Your task to perform on an android device: open app "Messages" Image 0: 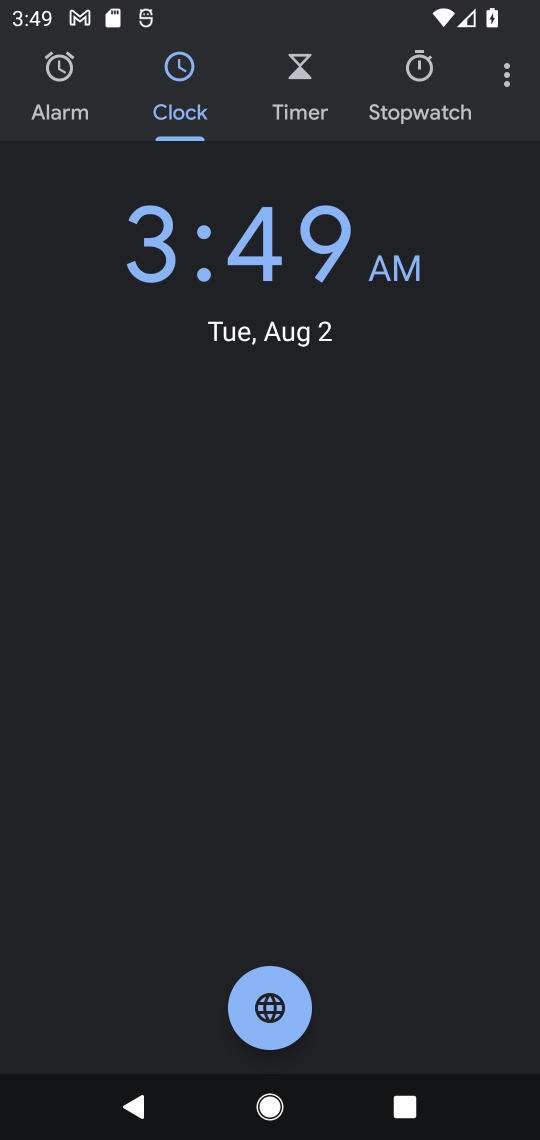
Step 0: press home button
Your task to perform on an android device: open app "Messages" Image 1: 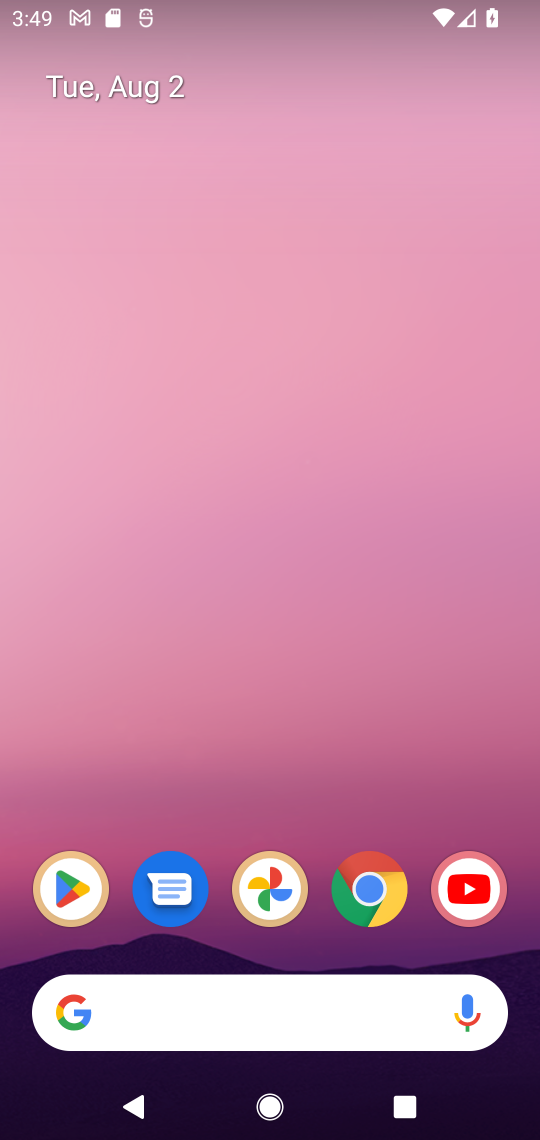
Step 1: drag from (463, 768) to (439, 72)
Your task to perform on an android device: open app "Messages" Image 2: 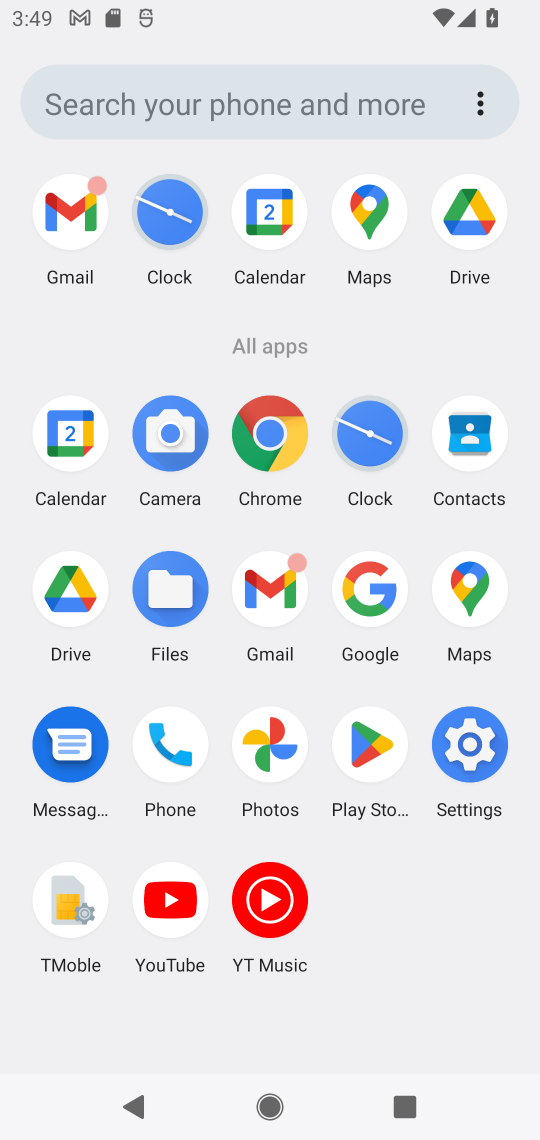
Step 2: click (370, 749)
Your task to perform on an android device: open app "Messages" Image 3: 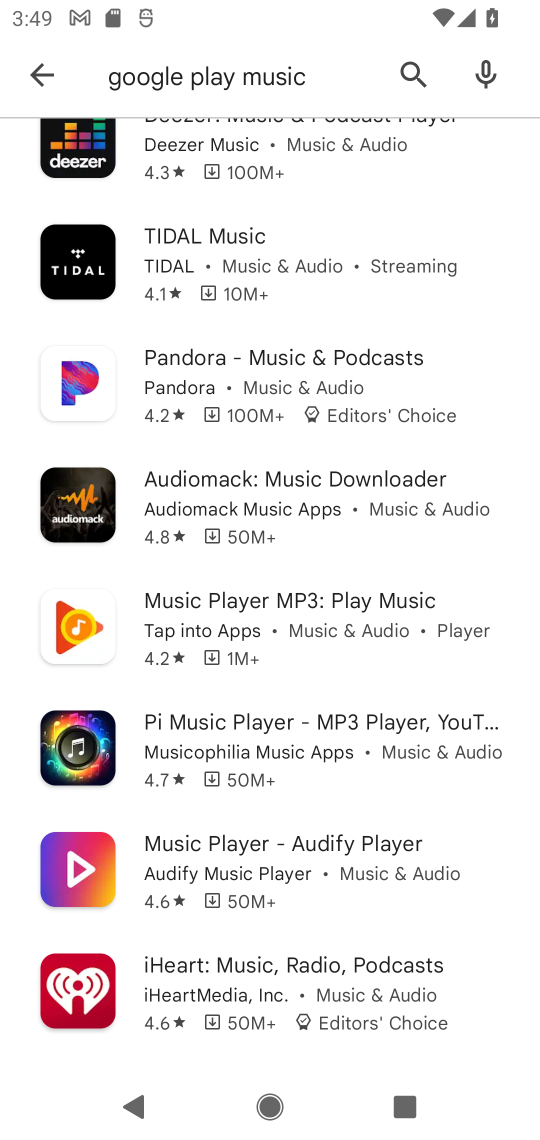
Step 3: click (406, 68)
Your task to perform on an android device: open app "Messages" Image 4: 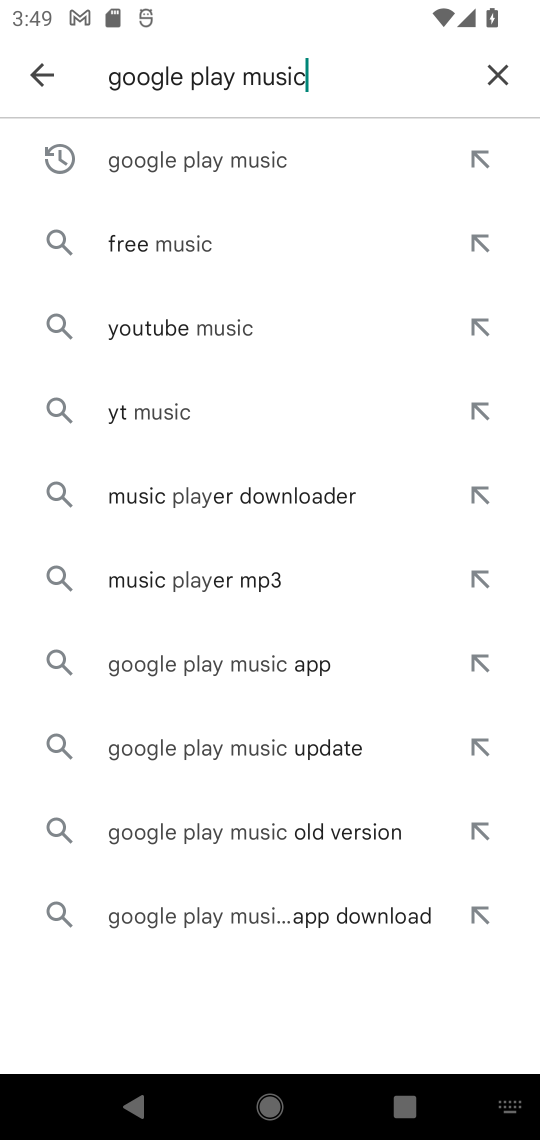
Step 4: click (504, 80)
Your task to perform on an android device: open app "Messages" Image 5: 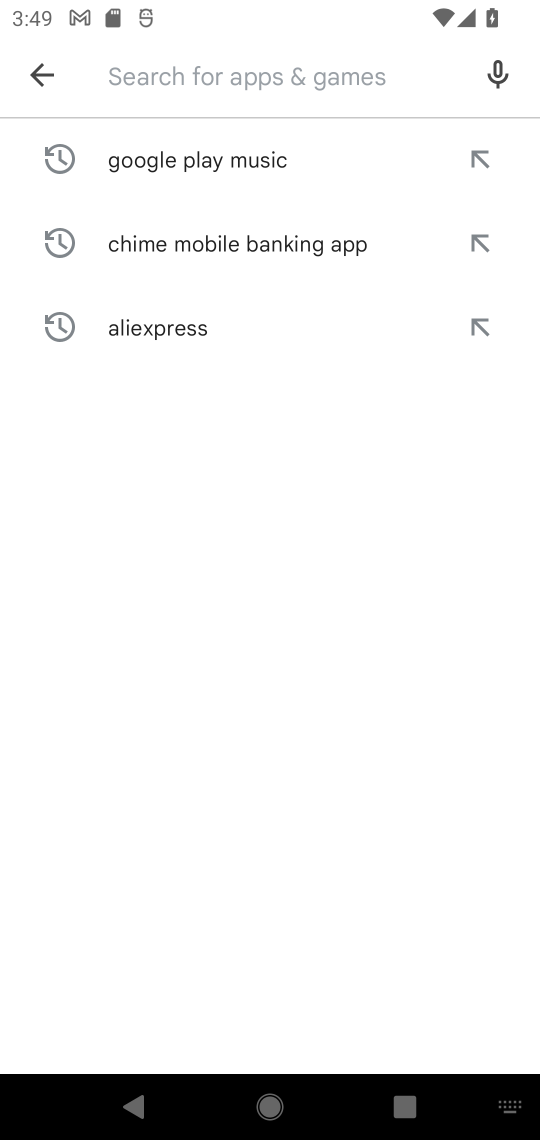
Step 5: type "messages"
Your task to perform on an android device: open app "Messages" Image 6: 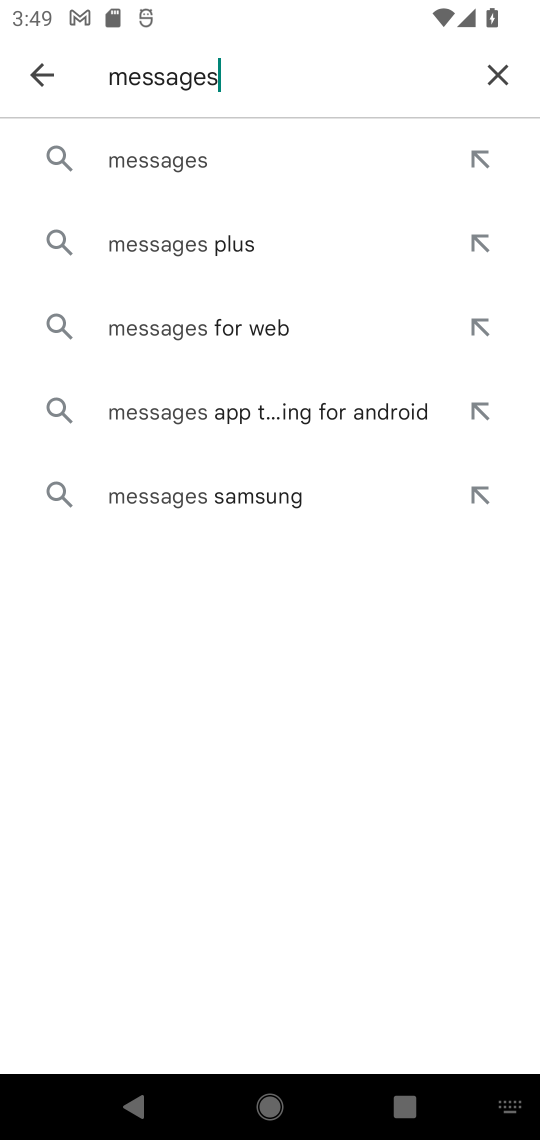
Step 6: click (318, 166)
Your task to perform on an android device: open app "Messages" Image 7: 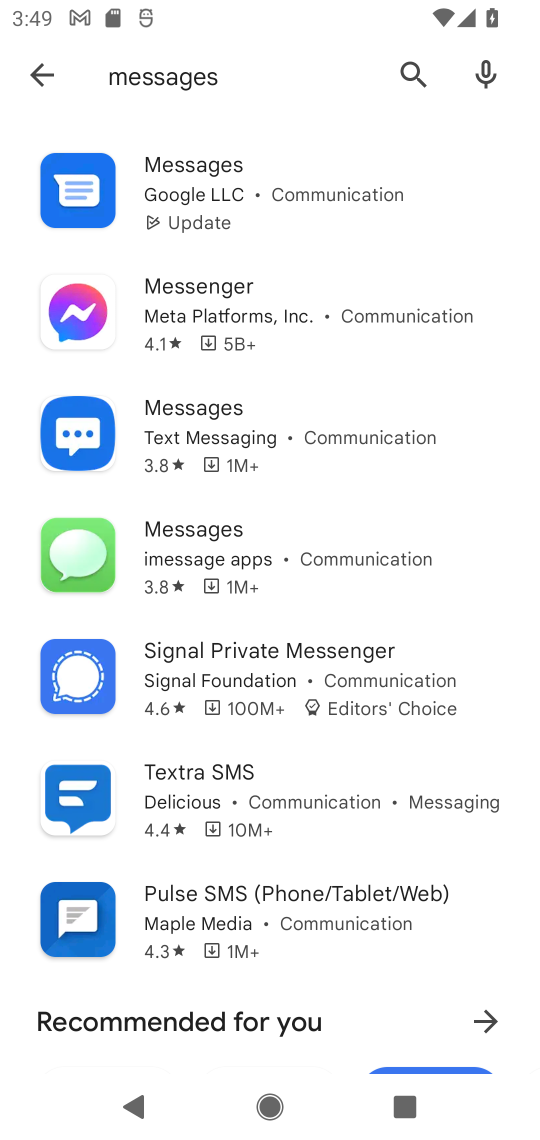
Step 7: click (335, 170)
Your task to perform on an android device: open app "Messages" Image 8: 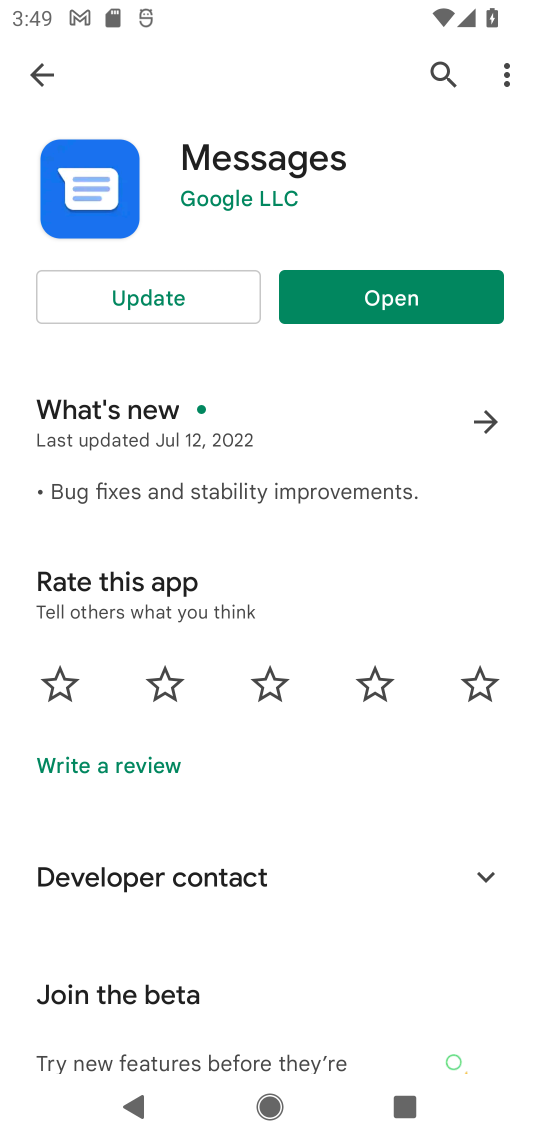
Step 8: click (387, 303)
Your task to perform on an android device: open app "Messages" Image 9: 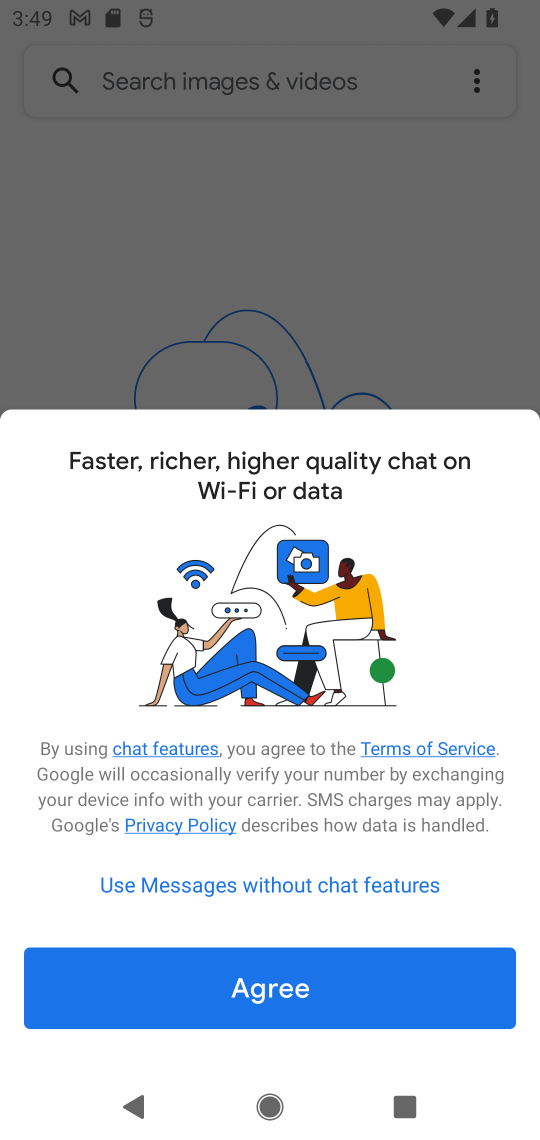
Step 9: task complete